Your task to perform on an android device: Open calendar and show me the first week of next month Image 0: 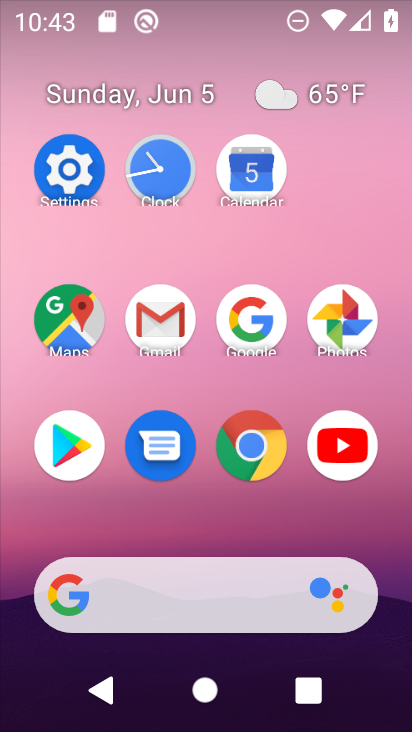
Step 0: click (242, 151)
Your task to perform on an android device: Open calendar and show me the first week of next month Image 1: 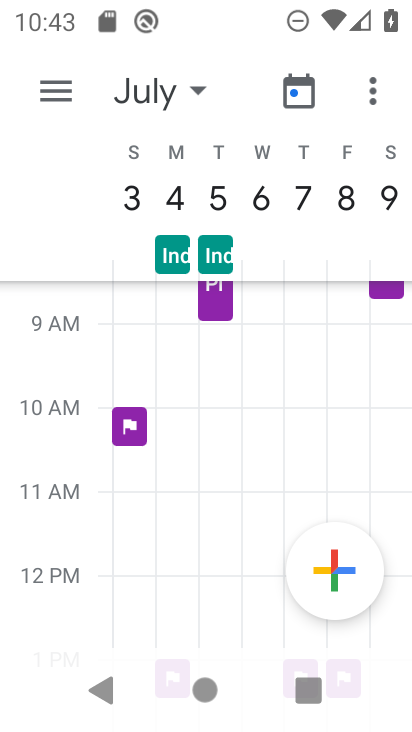
Step 1: task complete